Your task to perform on an android device: Open Yahoo.com Image 0: 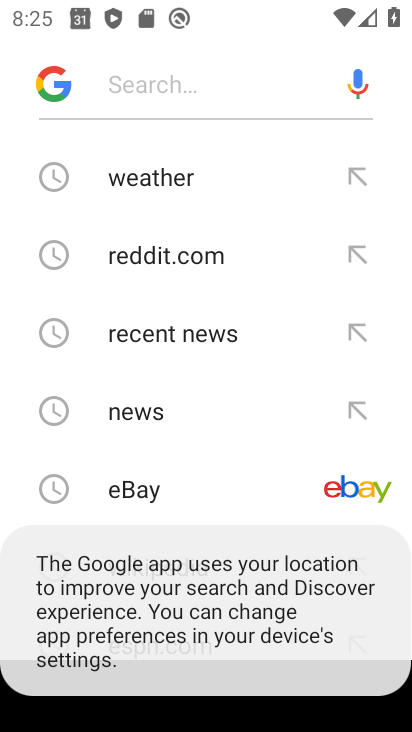
Step 0: press home button
Your task to perform on an android device: Open Yahoo.com Image 1: 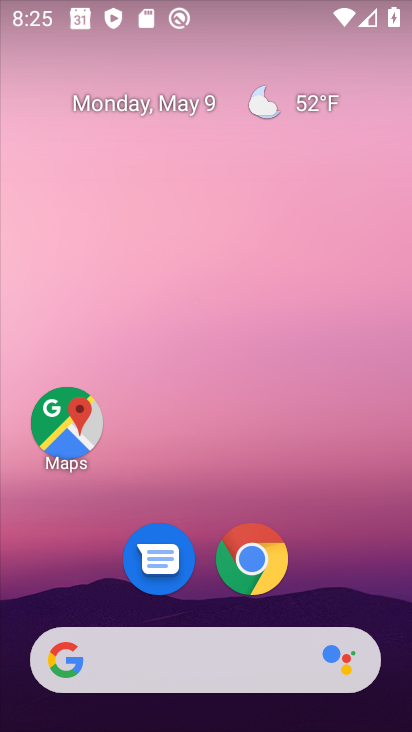
Step 1: click (239, 539)
Your task to perform on an android device: Open Yahoo.com Image 2: 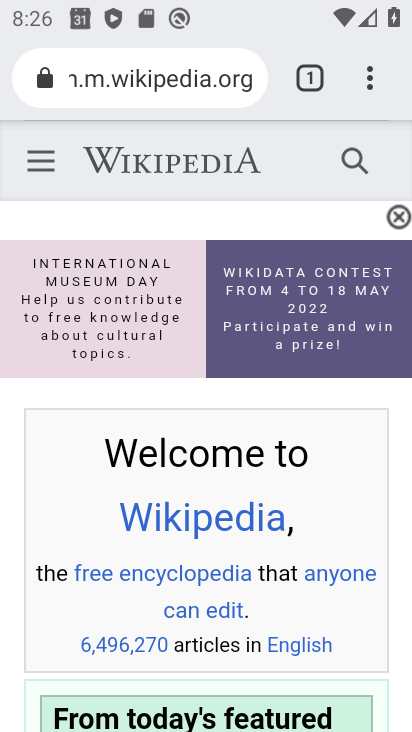
Step 2: click (302, 71)
Your task to perform on an android device: Open Yahoo.com Image 3: 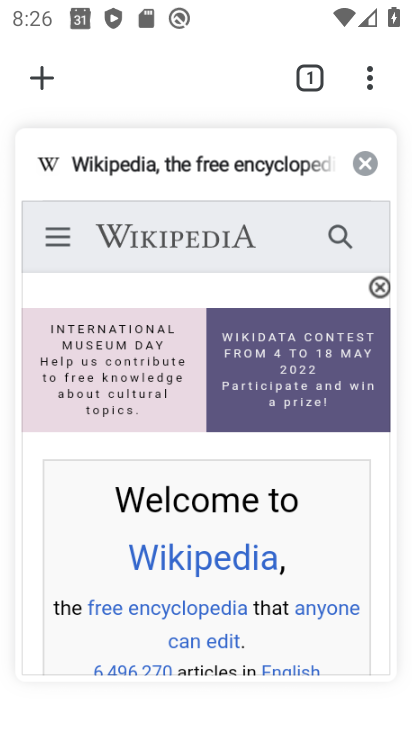
Step 3: click (41, 77)
Your task to perform on an android device: Open Yahoo.com Image 4: 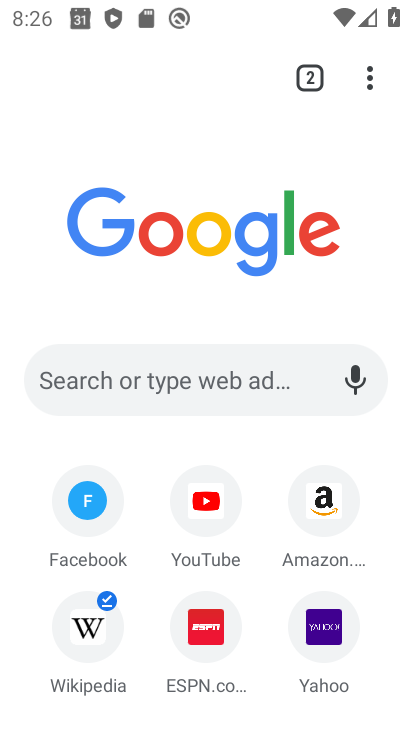
Step 4: click (312, 614)
Your task to perform on an android device: Open Yahoo.com Image 5: 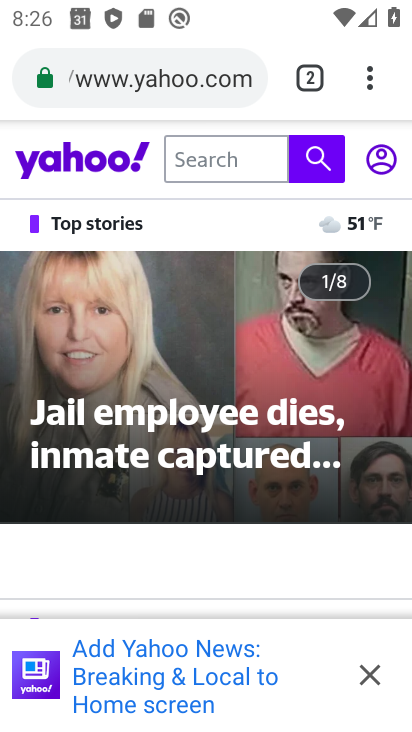
Step 5: task complete